Your task to perform on an android device: Play the new Katy Perry video on YouTube Image 0: 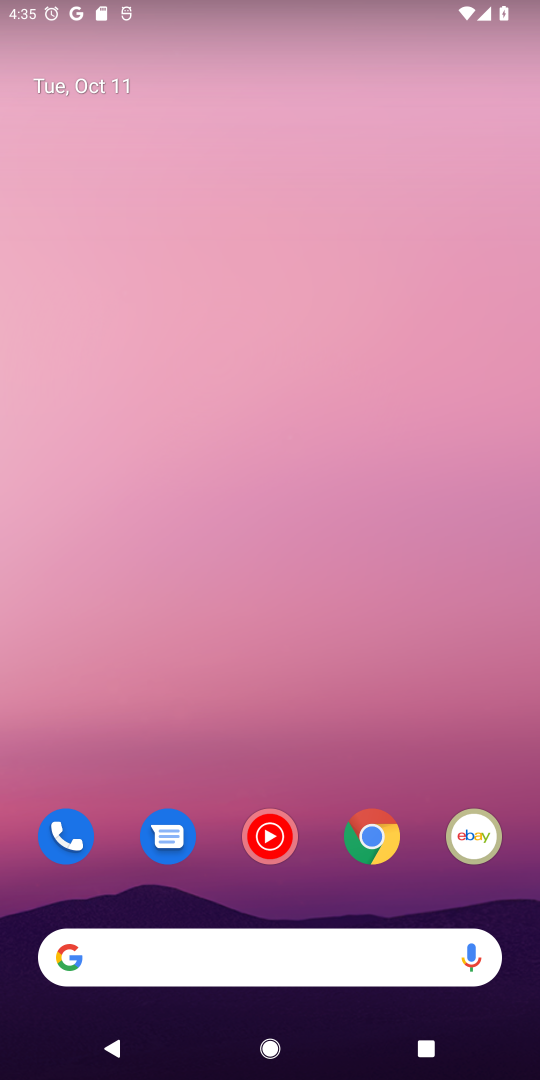
Step 0: click (279, 963)
Your task to perform on an android device: Play the new Katy Perry video on YouTube Image 1: 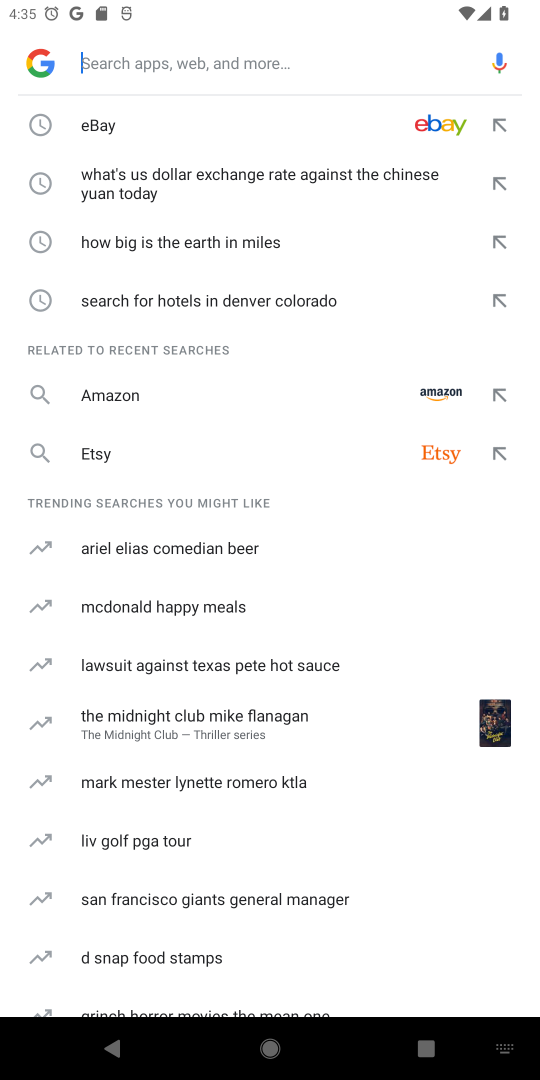
Step 1: type "Katy Perry"
Your task to perform on an android device: Play the new Katy Perry video on YouTube Image 2: 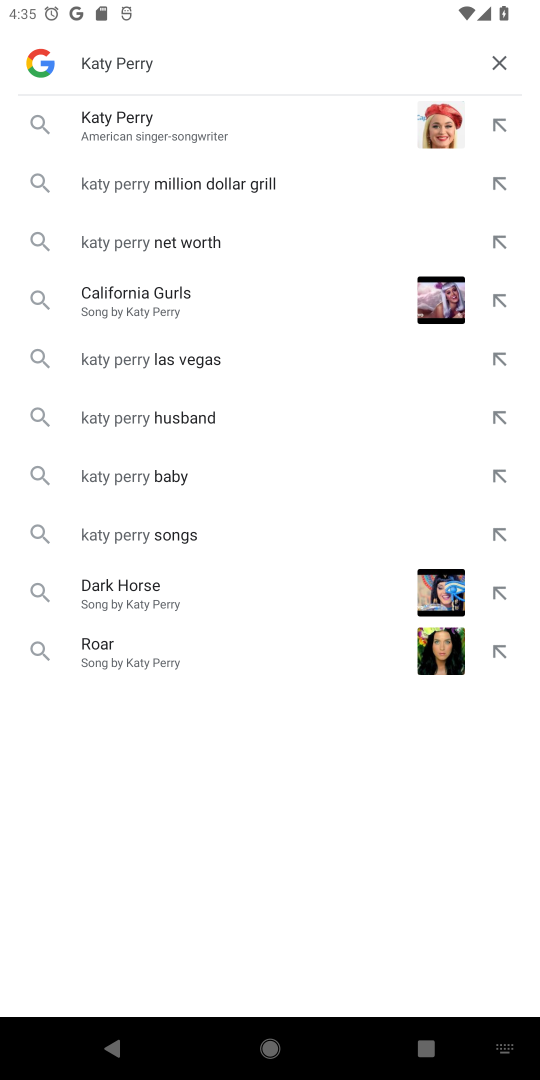
Step 2: click (207, 133)
Your task to perform on an android device: Play the new Katy Perry video on YouTube Image 3: 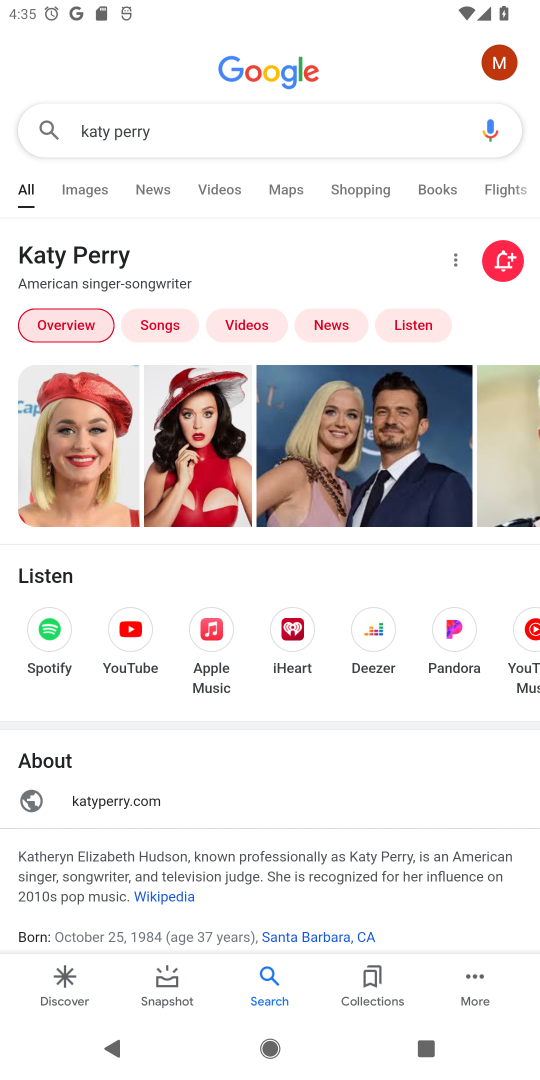
Step 3: drag from (156, 809) to (183, 449)
Your task to perform on an android device: Play the new Katy Perry video on YouTube Image 4: 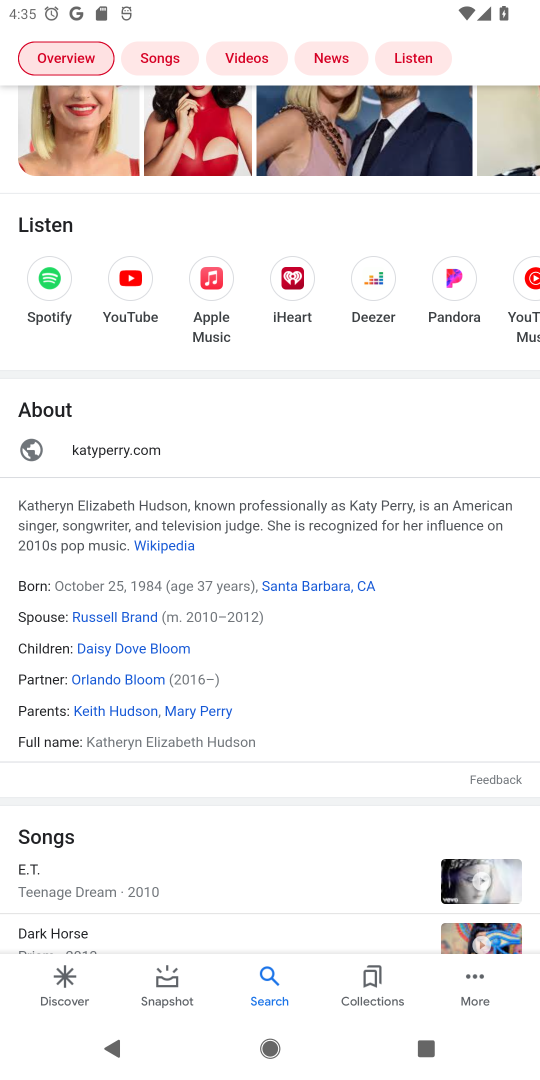
Step 4: click (121, 282)
Your task to perform on an android device: Play the new Katy Perry video on YouTube Image 5: 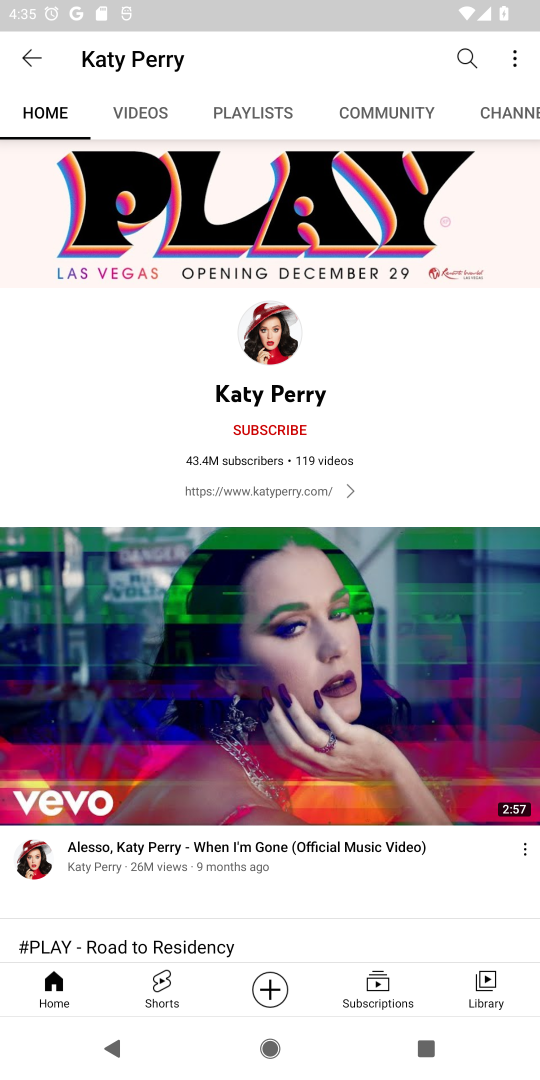
Step 5: task complete